Your task to perform on an android device: refresh tabs in the chrome app Image 0: 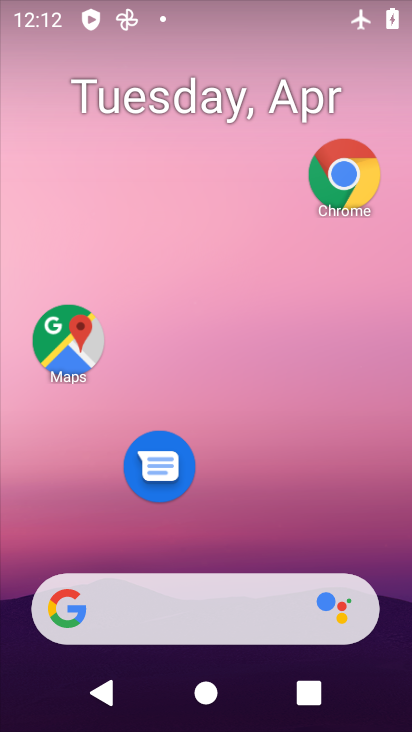
Step 0: click (339, 207)
Your task to perform on an android device: refresh tabs in the chrome app Image 1: 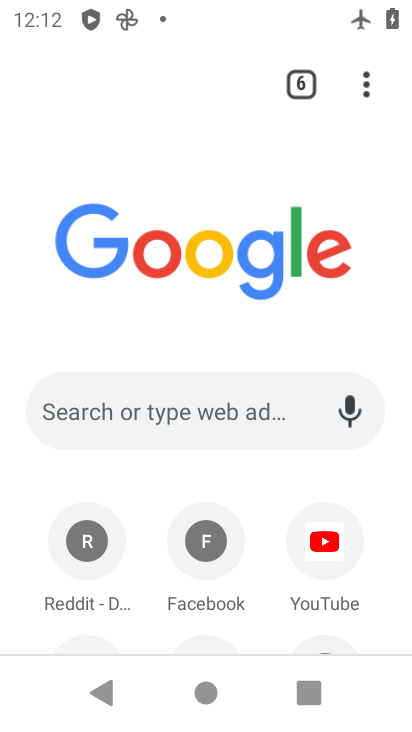
Step 1: click (357, 98)
Your task to perform on an android device: refresh tabs in the chrome app Image 2: 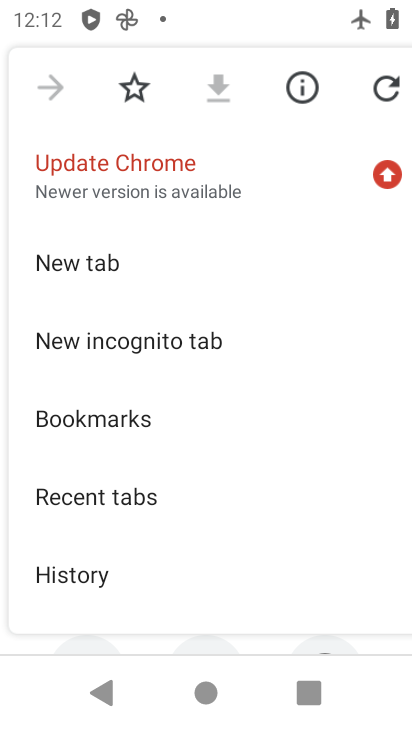
Step 2: click (382, 95)
Your task to perform on an android device: refresh tabs in the chrome app Image 3: 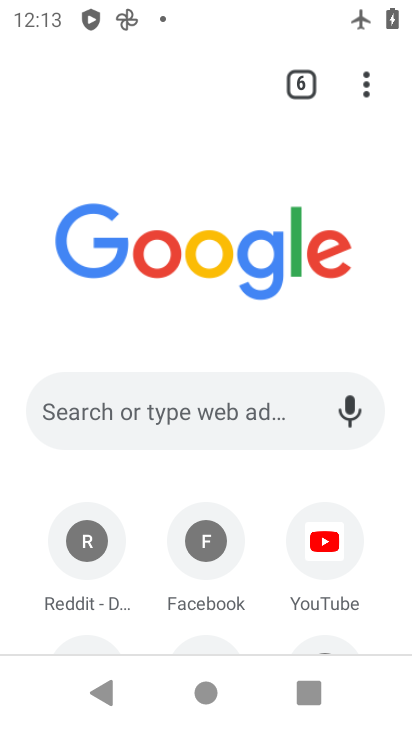
Step 3: task complete